Your task to perform on an android device: uninstall "Pluto TV - Live TV and Movies" Image 0: 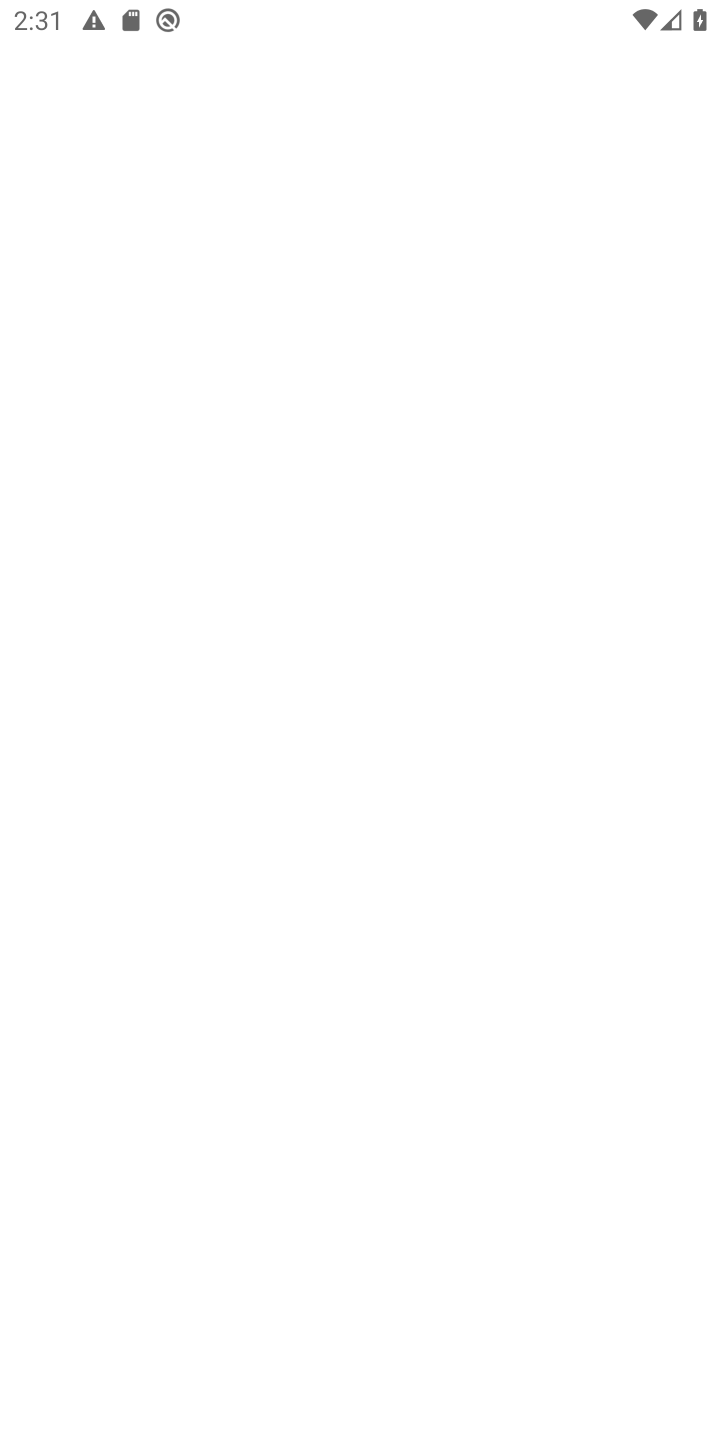
Step 0: press home button
Your task to perform on an android device: uninstall "Pluto TV - Live TV and Movies" Image 1: 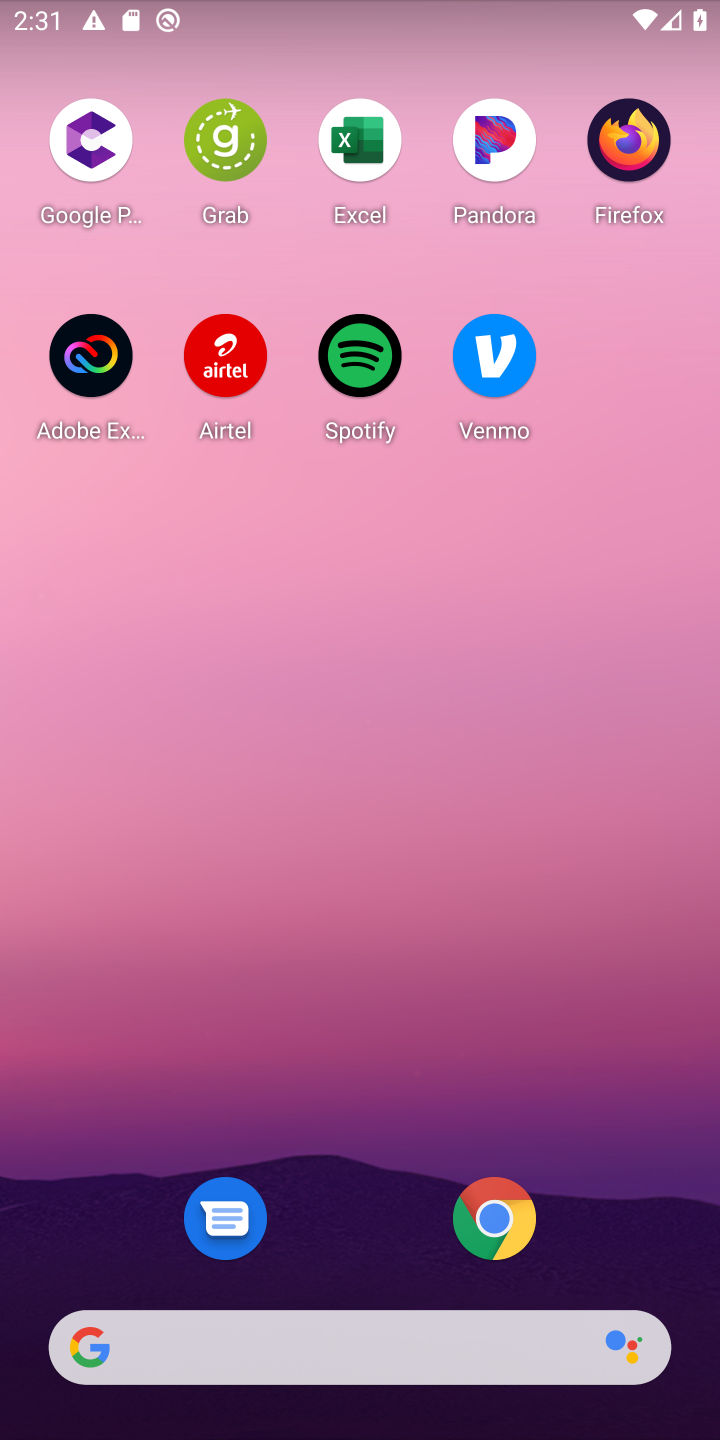
Step 1: drag from (307, 352) to (304, 196)
Your task to perform on an android device: uninstall "Pluto TV - Live TV and Movies" Image 2: 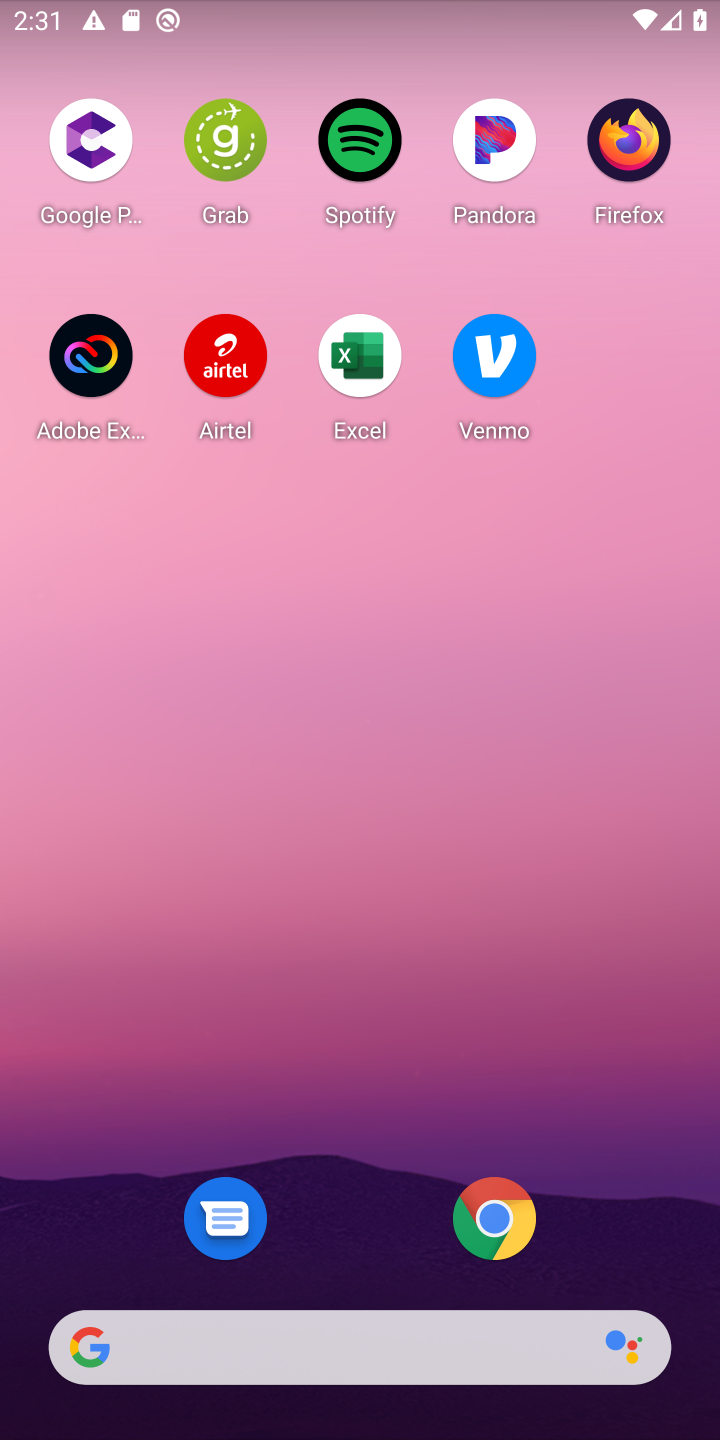
Step 2: drag from (381, 549) to (379, 418)
Your task to perform on an android device: uninstall "Pluto TV - Live TV and Movies" Image 3: 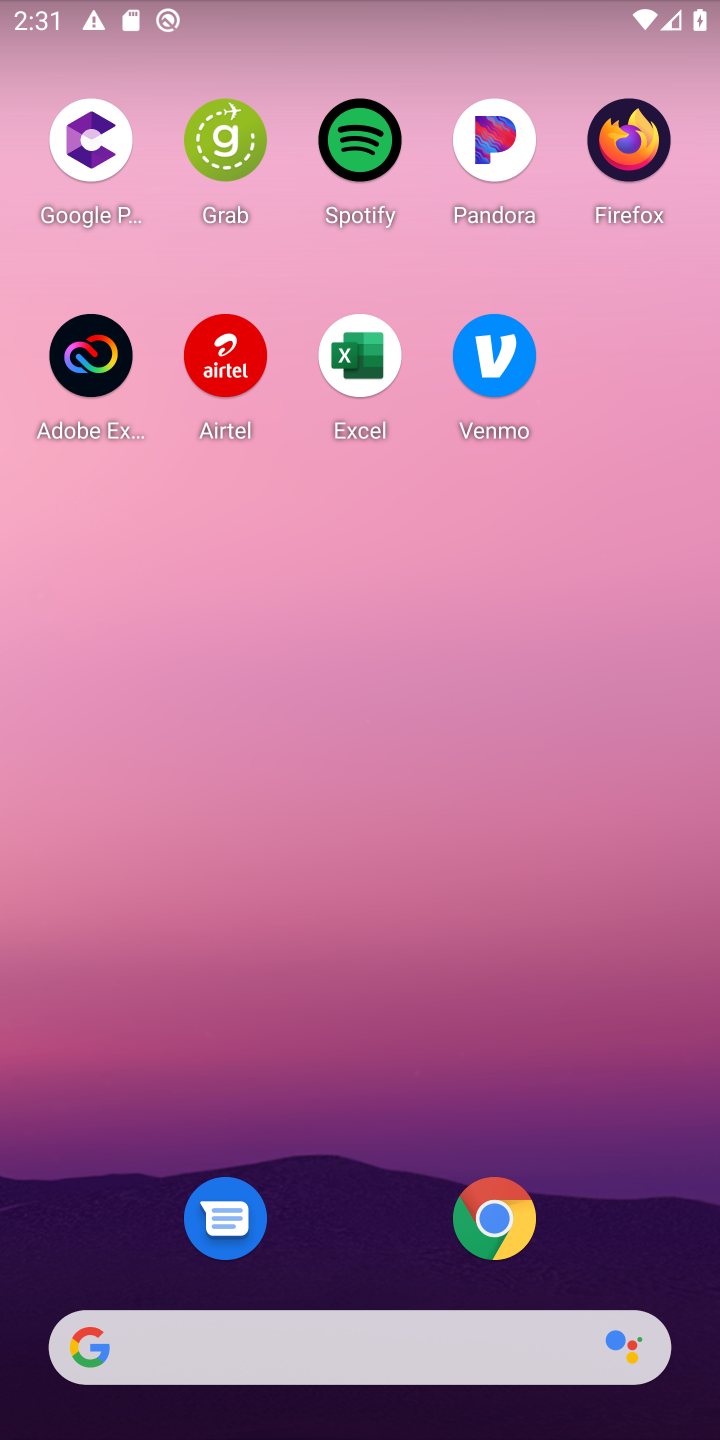
Step 3: drag from (467, 1053) to (433, 365)
Your task to perform on an android device: uninstall "Pluto TV - Live TV and Movies" Image 4: 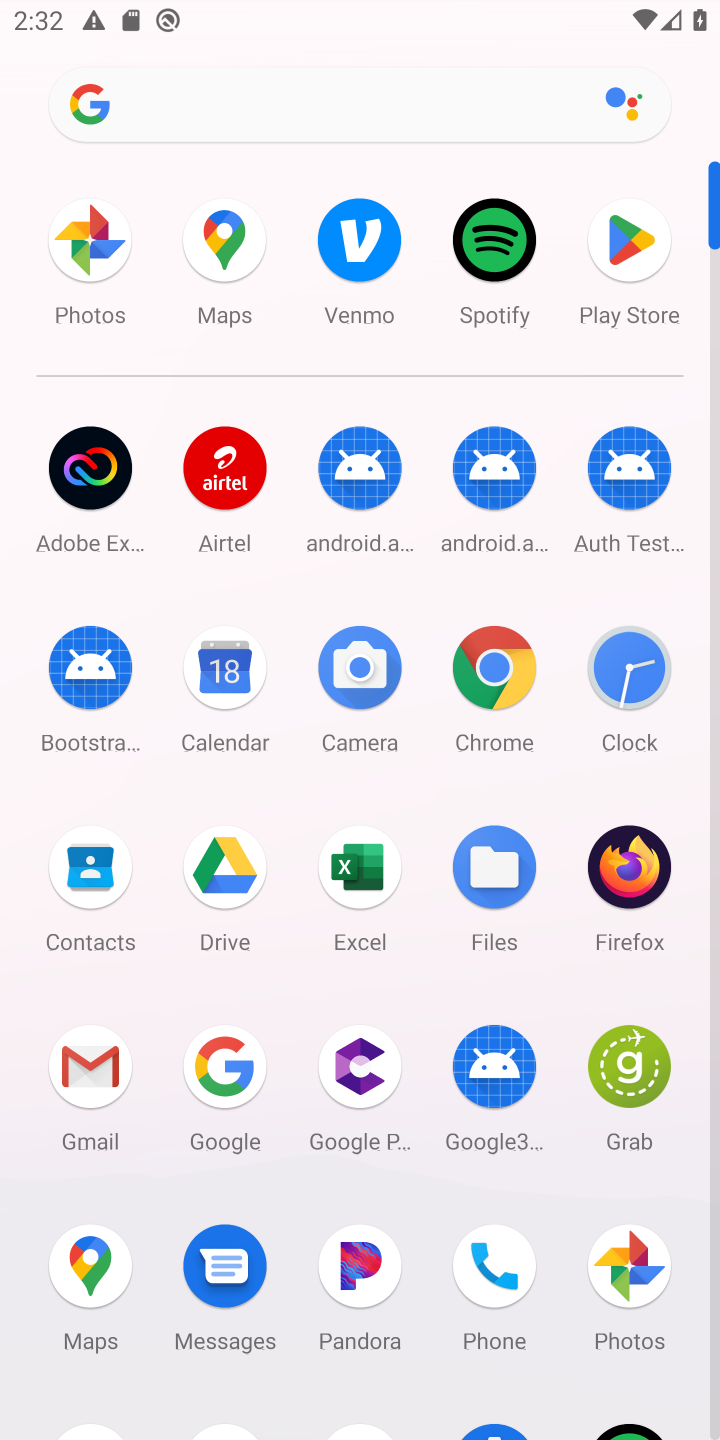
Step 4: click (638, 260)
Your task to perform on an android device: uninstall "Pluto TV - Live TV and Movies" Image 5: 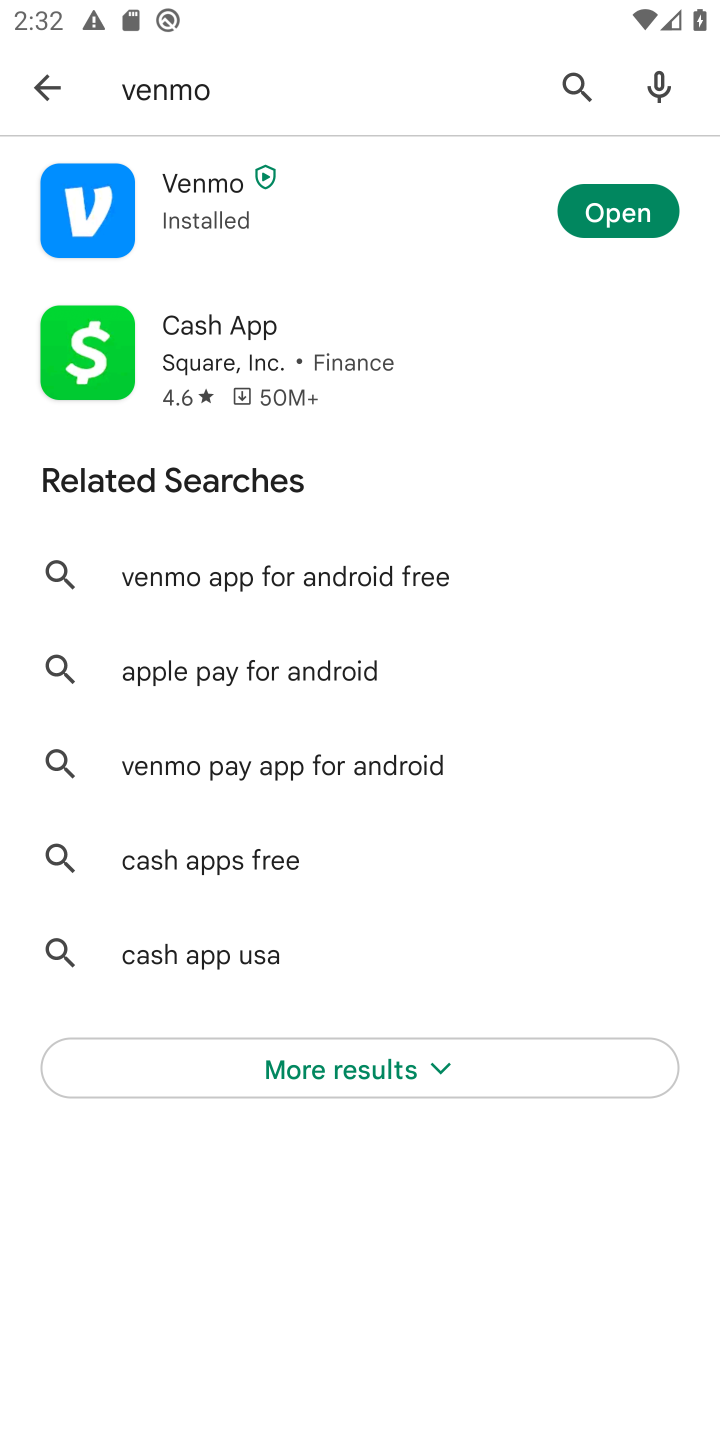
Step 5: click (587, 103)
Your task to perform on an android device: uninstall "Pluto TV - Live TV and Movies" Image 6: 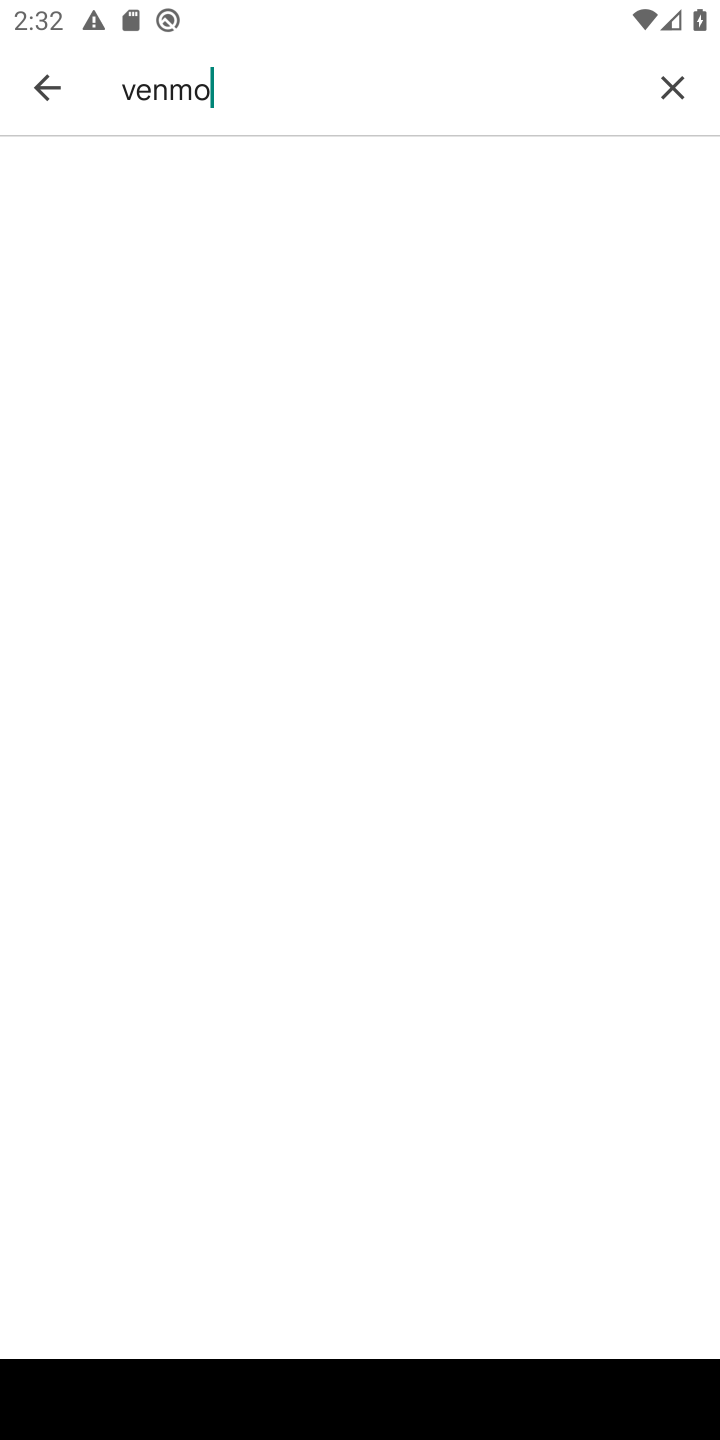
Step 6: click (672, 87)
Your task to perform on an android device: uninstall "Pluto TV - Live TV and Movies" Image 7: 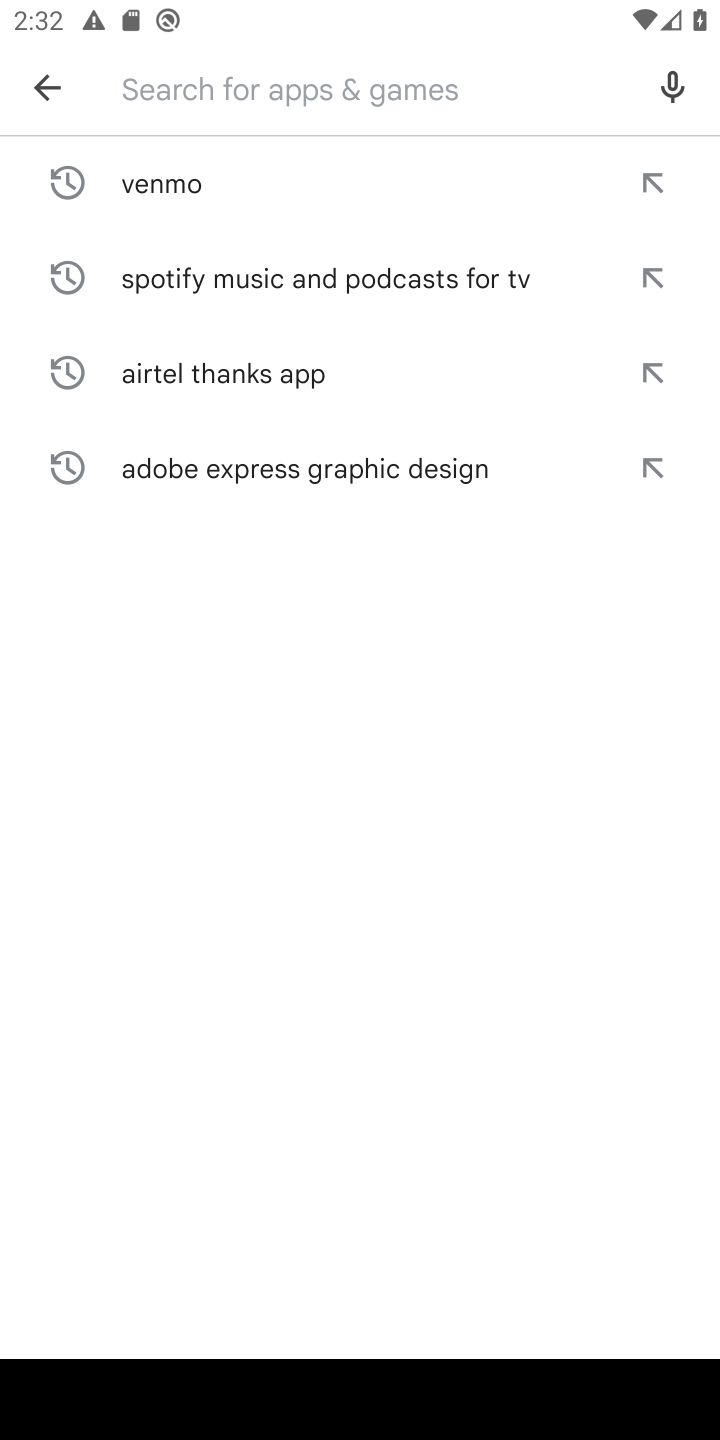
Step 7: type "Pluto TV - Live TV and Movies"
Your task to perform on an android device: uninstall "Pluto TV - Live TV and Movies" Image 8: 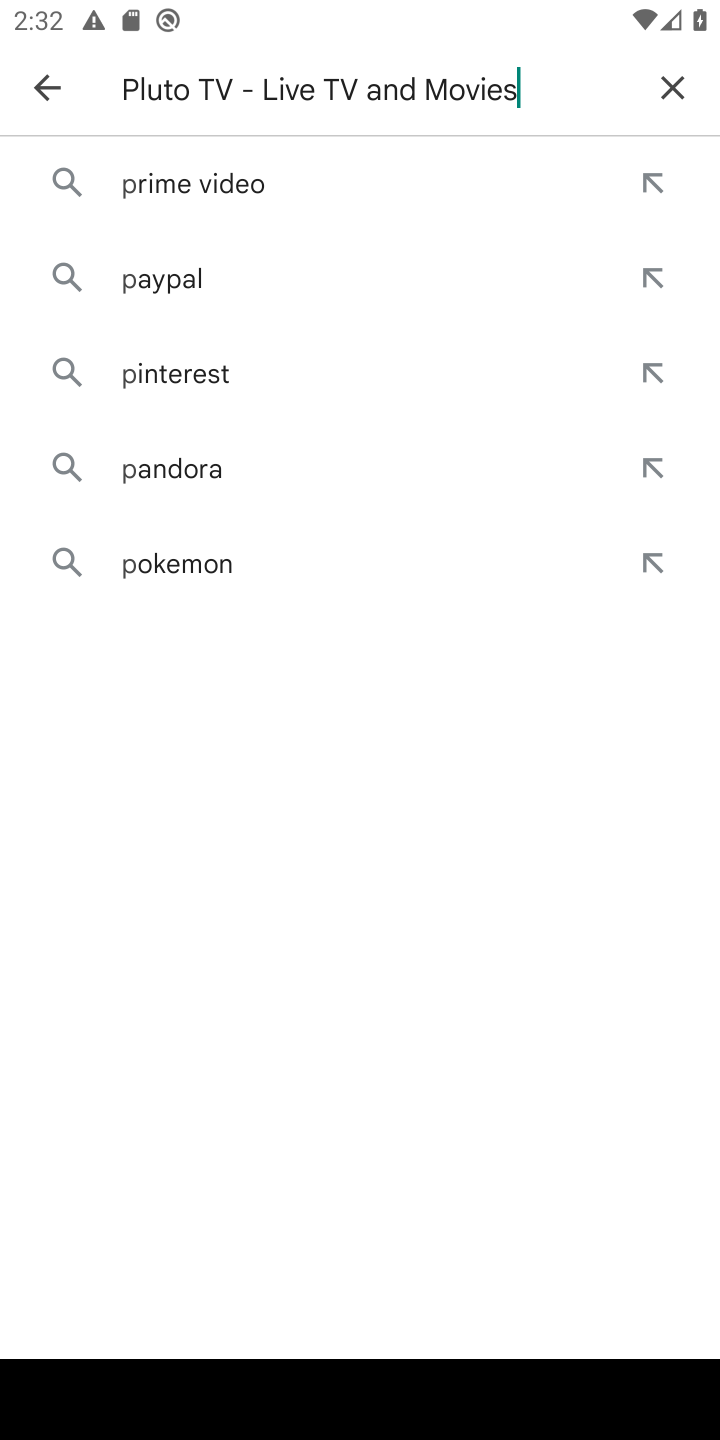
Step 8: type ""
Your task to perform on an android device: uninstall "Pluto TV - Live TV and Movies" Image 9: 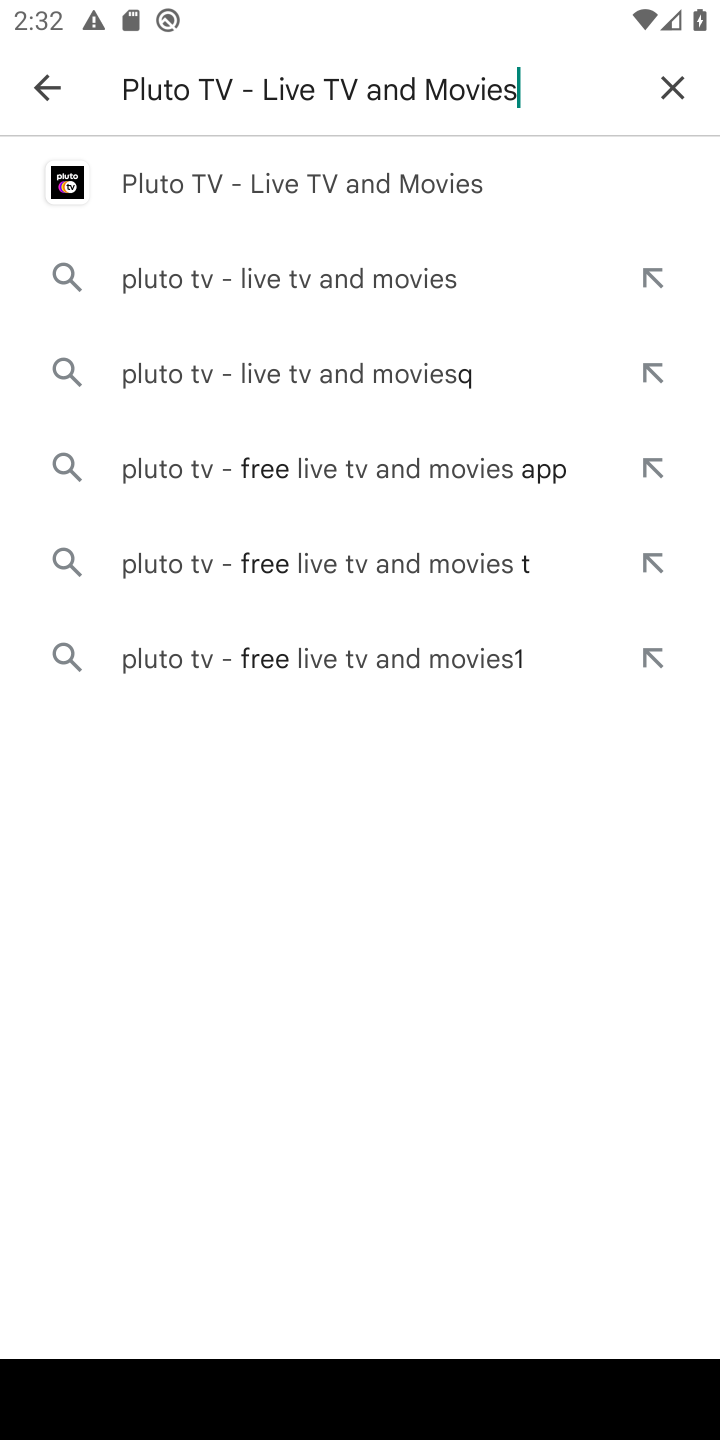
Step 9: click (321, 170)
Your task to perform on an android device: uninstall "Pluto TV - Live TV and Movies" Image 10: 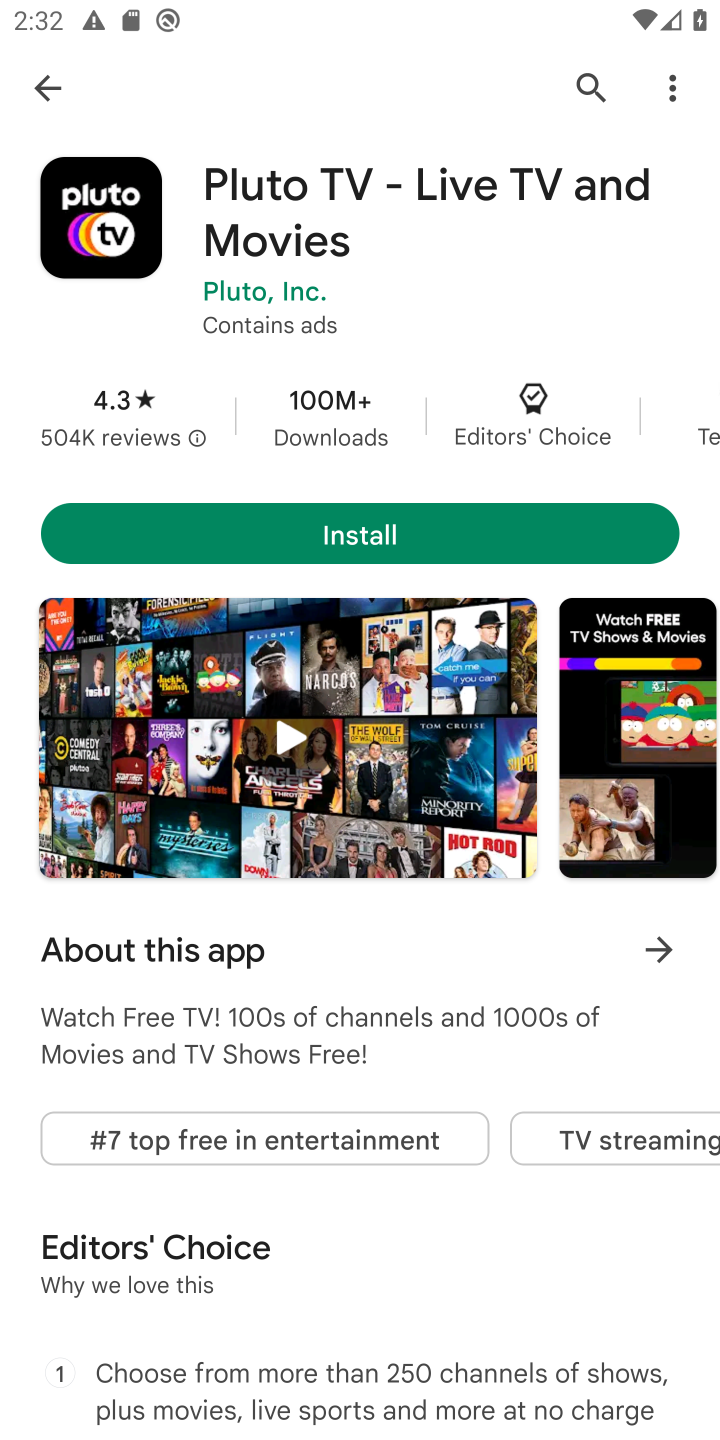
Step 10: task complete